Your task to perform on an android device: move an email to a new category in the gmail app Image 0: 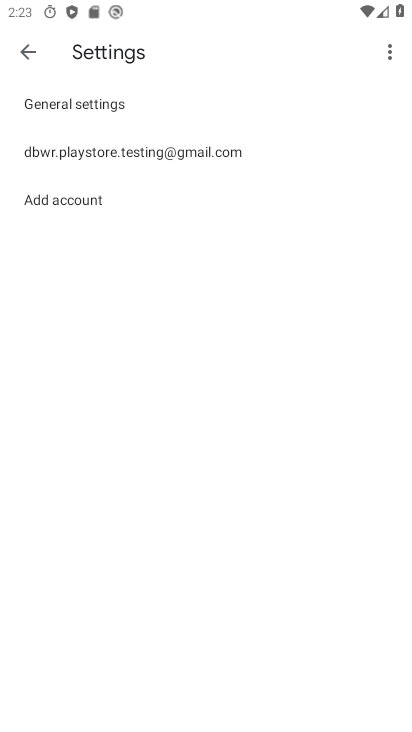
Step 0: press home button
Your task to perform on an android device: move an email to a new category in the gmail app Image 1: 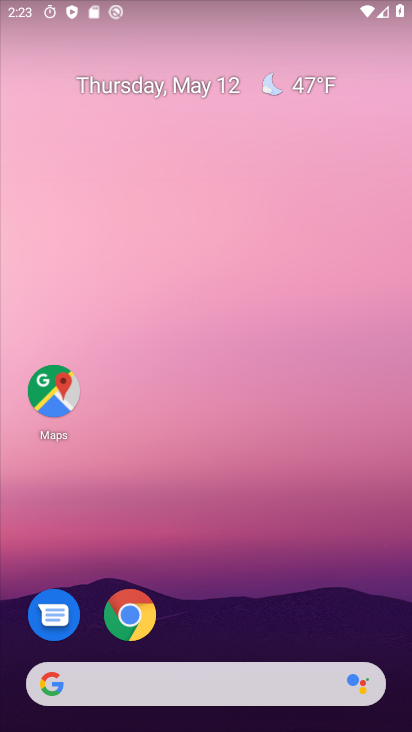
Step 1: drag from (231, 592) to (249, 95)
Your task to perform on an android device: move an email to a new category in the gmail app Image 2: 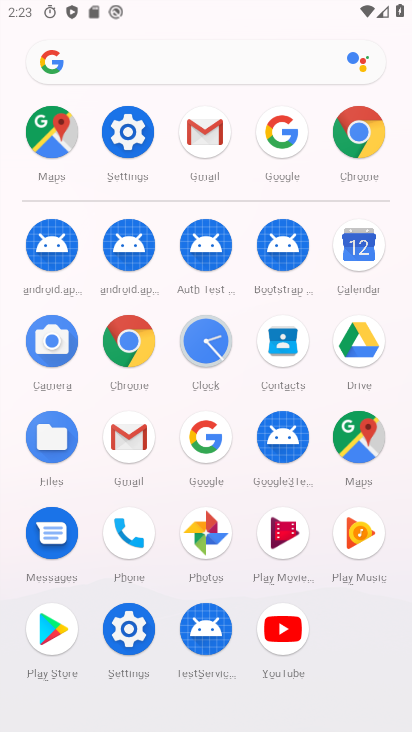
Step 2: click (201, 129)
Your task to perform on an android device: move an email to a new category in the gmail app Image 3: 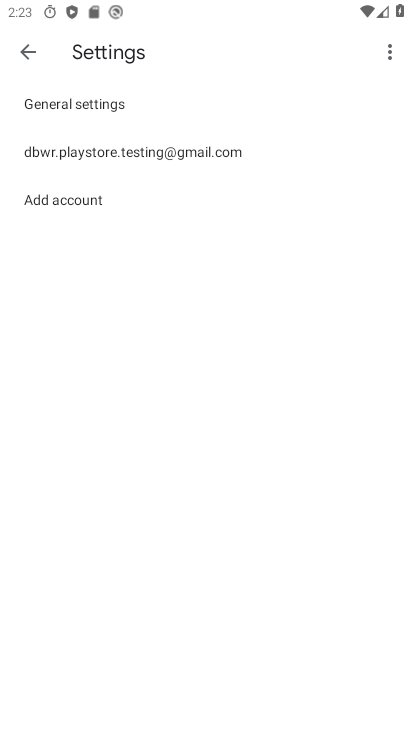
Step 3: click (142, 148)
Your task to perform on an android device: move an email to a new category in the gmail app Image 4: 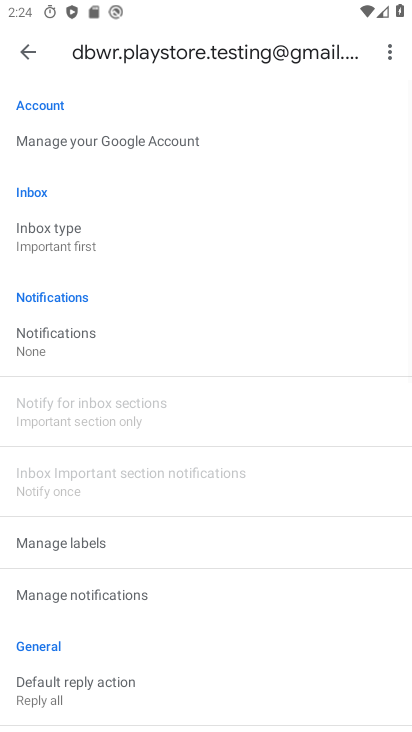
Step 4: press back button
Your task to perform on an android device: move an email to a new category in the gmail app Image 5: 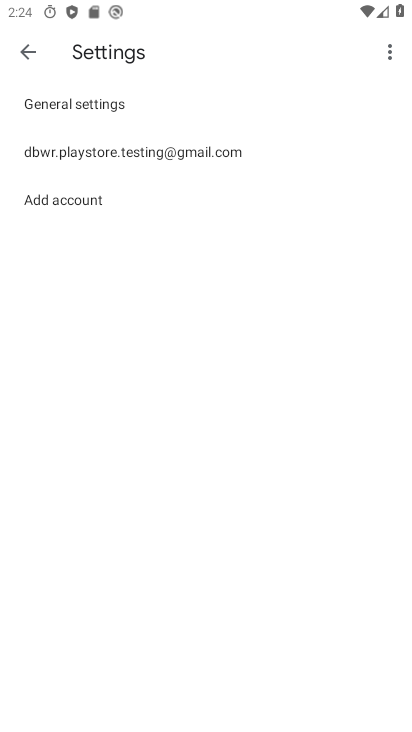
Step 5: press back button
Your task to perform on an android device: move an email to a new category in the gmail app Image 6: 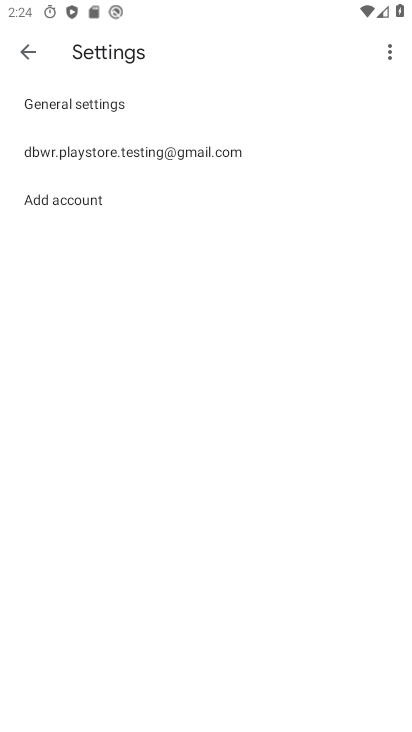
Step 6: press back button
Your task to perform on an android device: move an email to a new category in the gmail app Image 7: 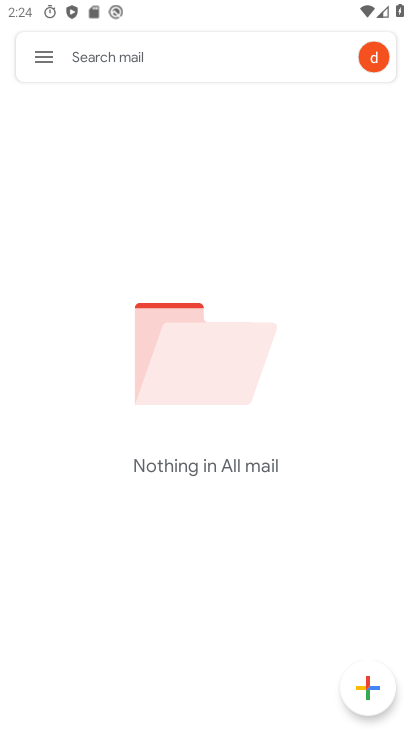
Step 7: click (58, 60)
Your task to perform on an android device: move an email to a new category in the gmail app Image 8: 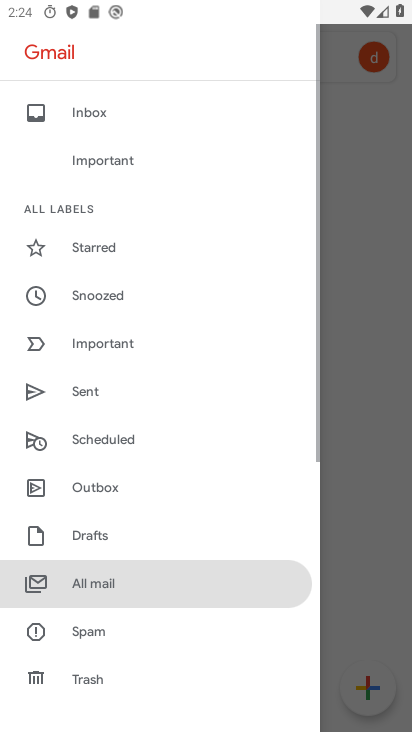
Step 8: click (142, 579)
Your task to perform on an android device: move an email to a new category in the gmail app Image 9: 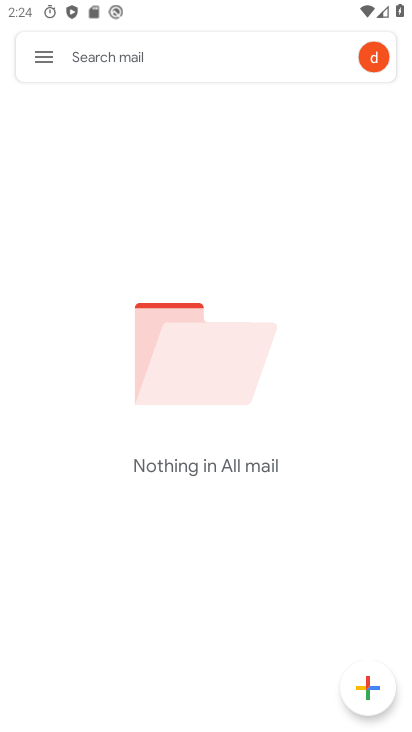
Step 9: task complete